Your task to perform on an android device: open device folders in google photos Image 0: 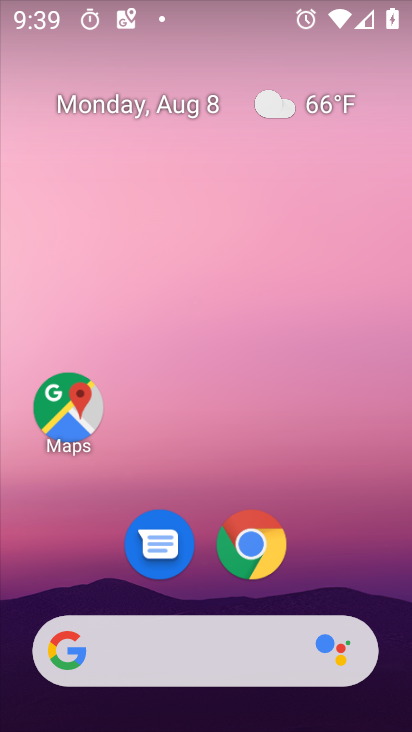
Step 0: drag from (298, 597) to (283, 53)
Your task to perform on an android device: open device folders in google photos Image 1: 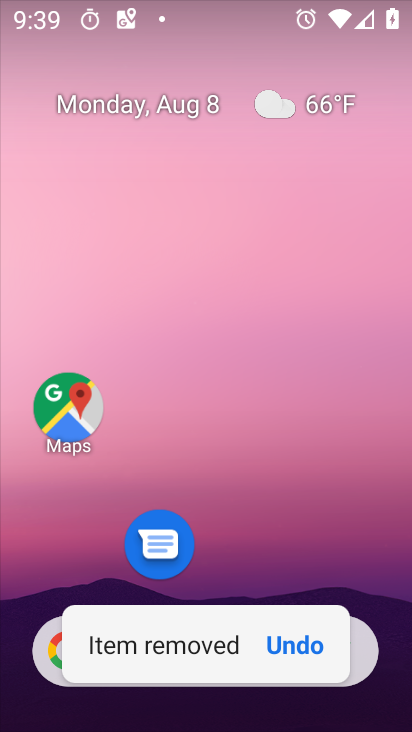
Step 1: click (304, 647)
Your task to perform on an android device: open device folders in google photos Image 2: 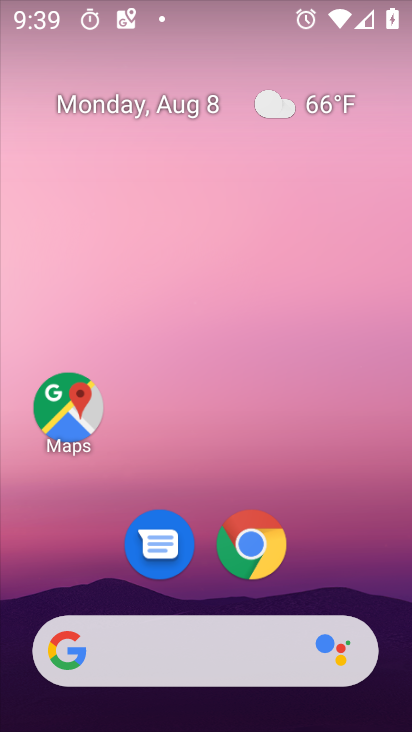
Step 2: drag from (349, 572) to (350, 11)
Your task to perform on an android device: open device folders in google photos Image 3: 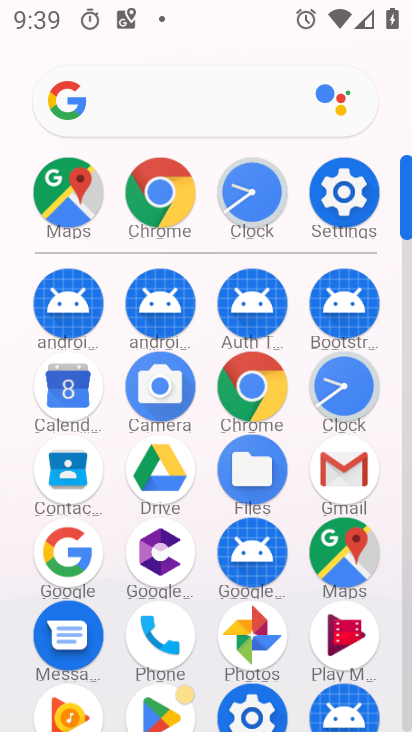
Step 3: click (246, 620)
Your task to perform on an android device: open device folders in google photos Image 4: 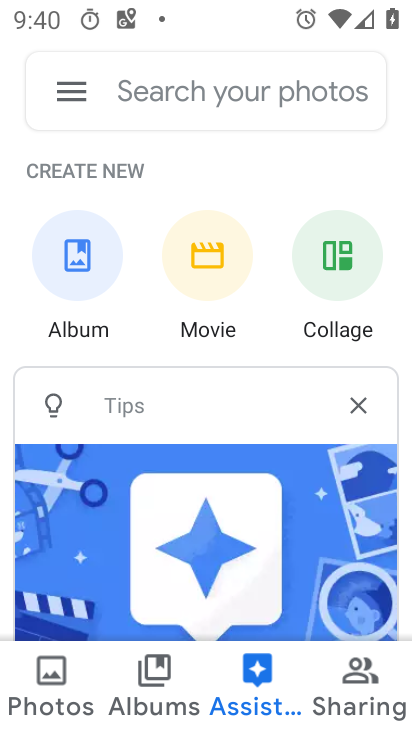
Step 4: click (54, 671)
Your task to perform on an android device: open device folders in google photos Image 5: 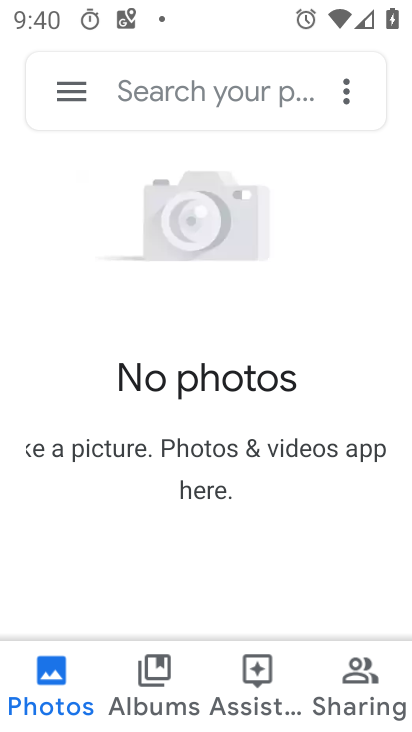
Step 5: click (63, 89)
Your task to perform on an android device: open device folders in google photos Image 6: 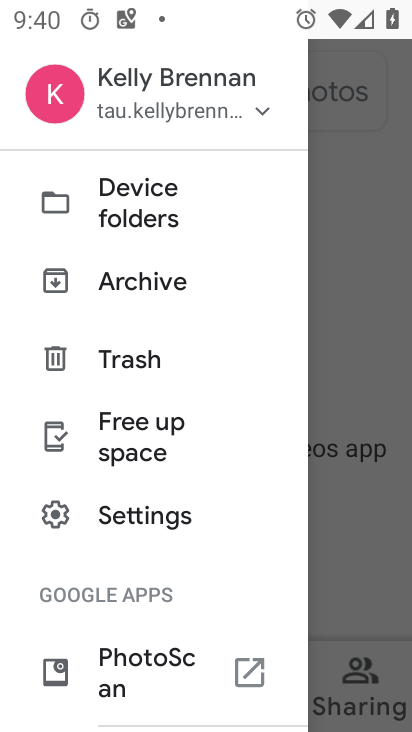
Step 6: click (127, 198)
Your task to perform on an android device: open device folders in google photos Image 7: 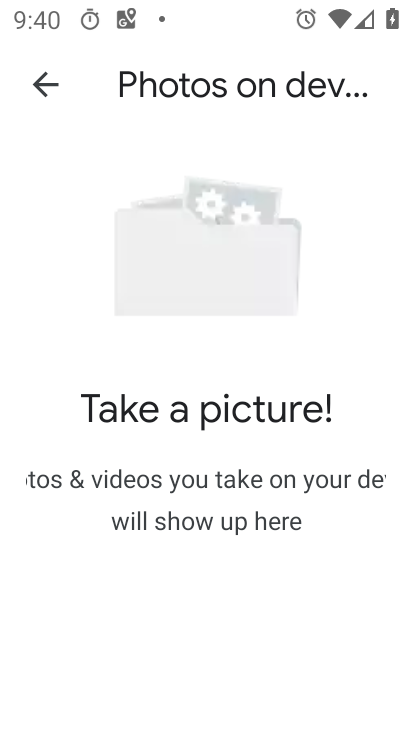
Step 7: task complete